Your task to perform on an android device: open a new tab in the chrome app Image 0: 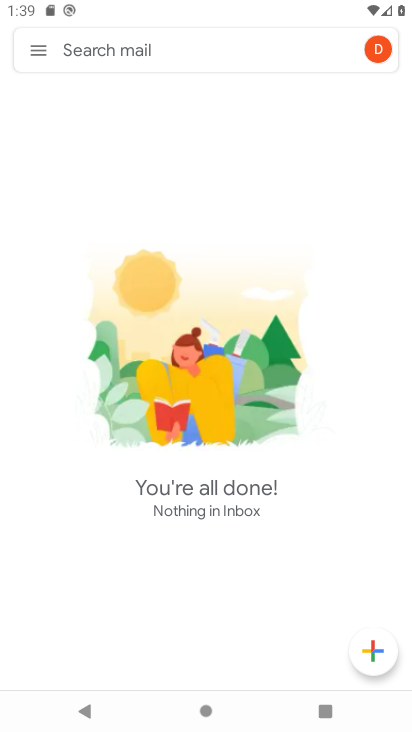
Step 0: press home button
Your task to perform on an android device: open a new tab in the chrome app Image 1: 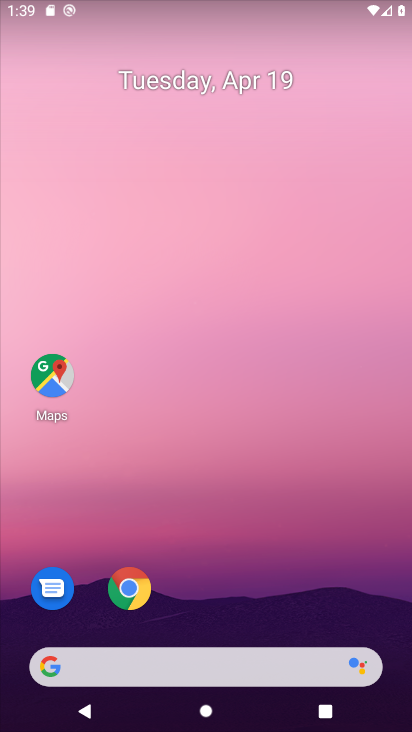
Step 1: click (135, 589)
Your task to perform on an android device: open a new tab in the chrome app Image 2: 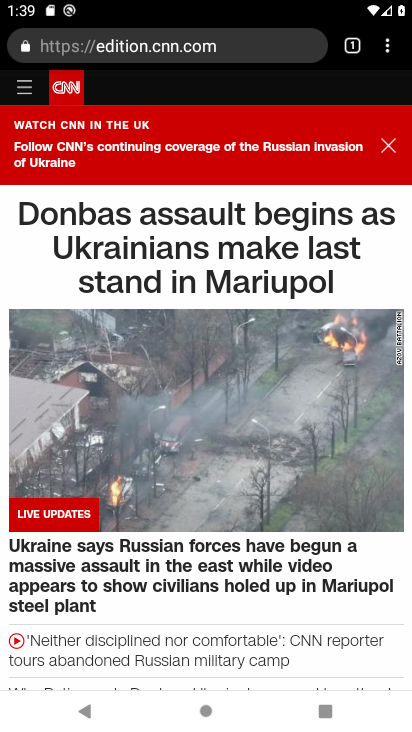
Step 2: click (389, 53)
Your task to perform on an android device: open a new tab in the chrome app Image 3: 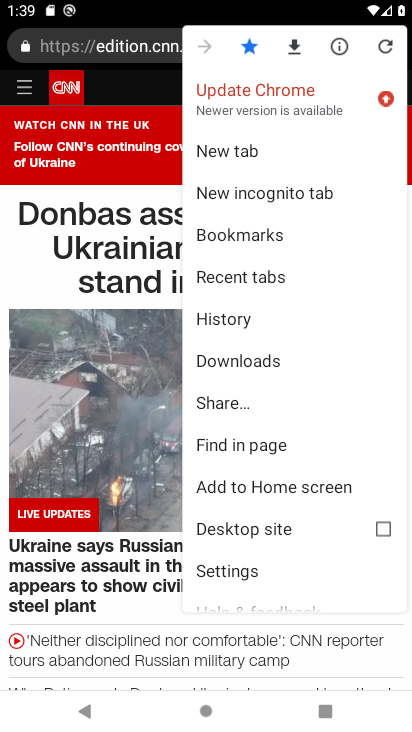
Step 3: click (238, 150)
Your task to perform on an android device: open a new tab in the chrome app Image 4: 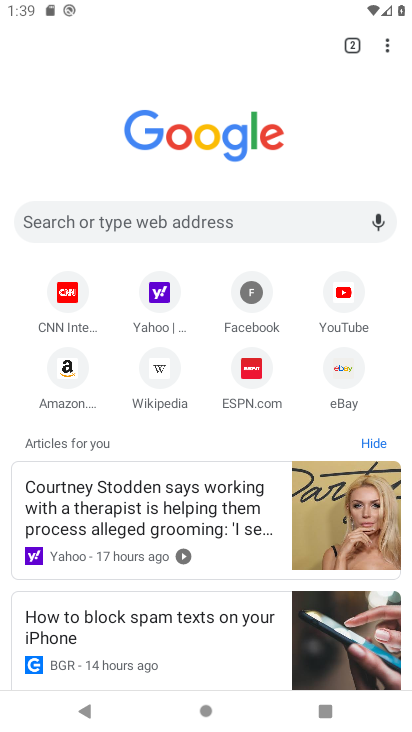
Step 4: task complete